Your task to perform on an android device: turn off sleep mode Image 0: 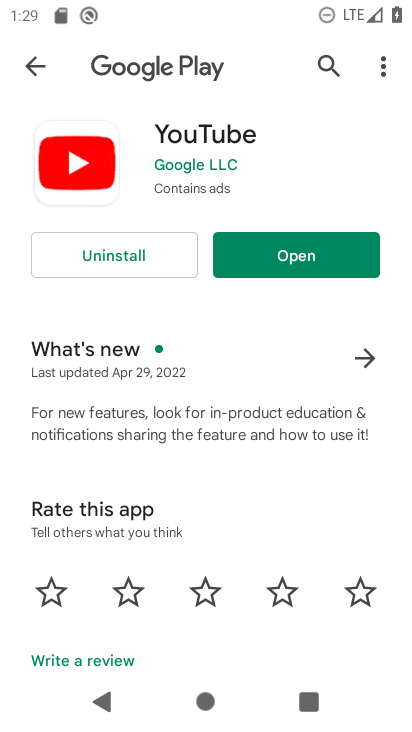
Step 0: press home button
Your task to perform on an android device: turn off sleep mode Image 1: 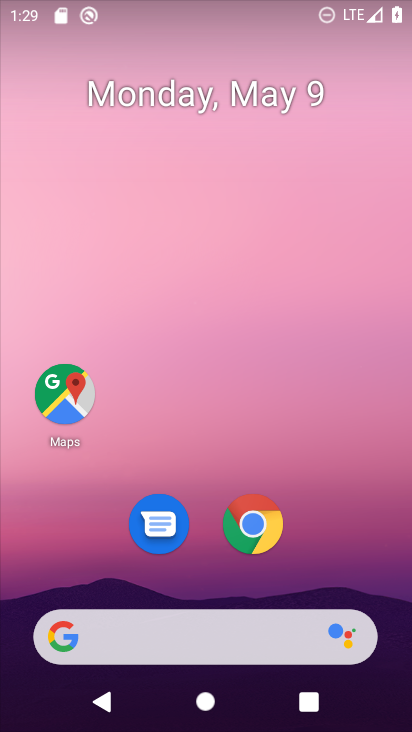
Step 1: drag from (201, 521) to (215, 74)
Your task to perform on an android device: turn off sleep mode Image 2: 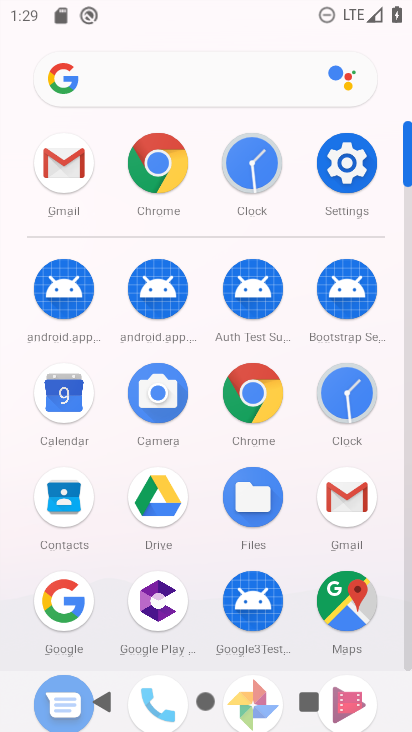
Step 2: click (351, 182)
Your task to perform on an android device: turn off sleep mode Image 3: 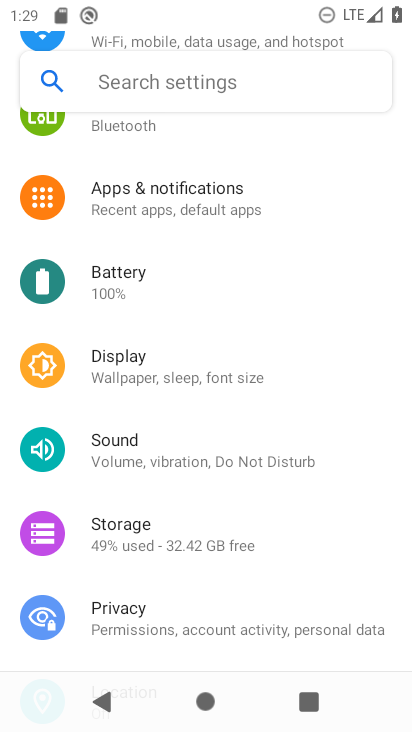
Step 3: click (222, 373)
Your task to perform on an android device: turn off sleep mode Image 4: 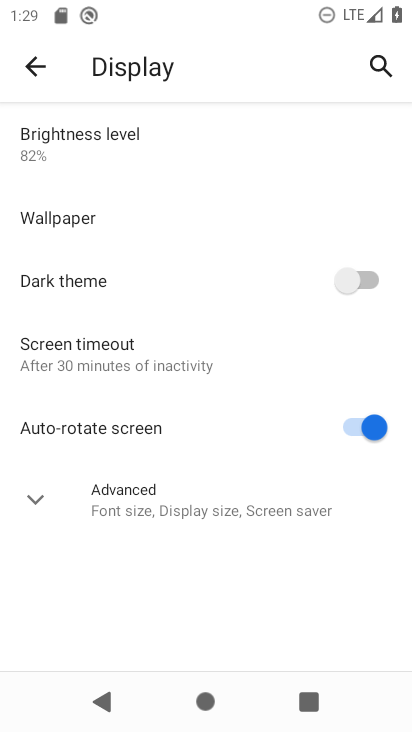
Step 4: click (35, 495)
Your task to perform on an android device: turn off sleep mode Image 5: 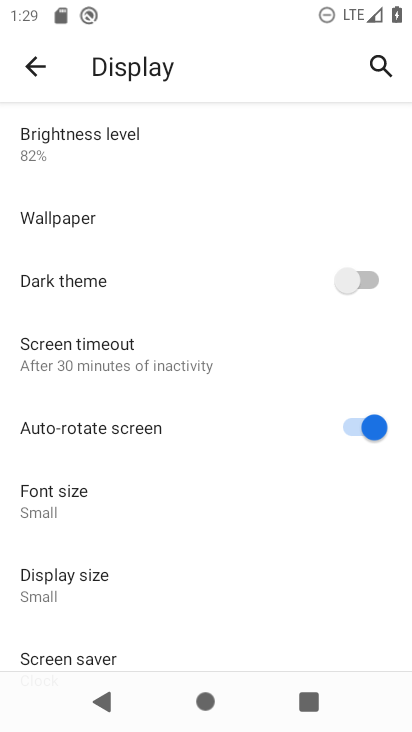
Step 5: task complete